Your task to perform on an android device: turn on the 12-hour format for clock Image 0: 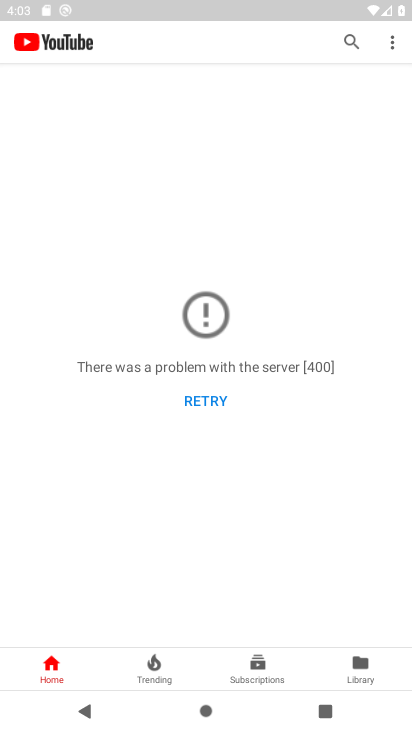
Step 0: press home button
Your task to perform on an android device: turn on the 12-hour format for clock Image 1: 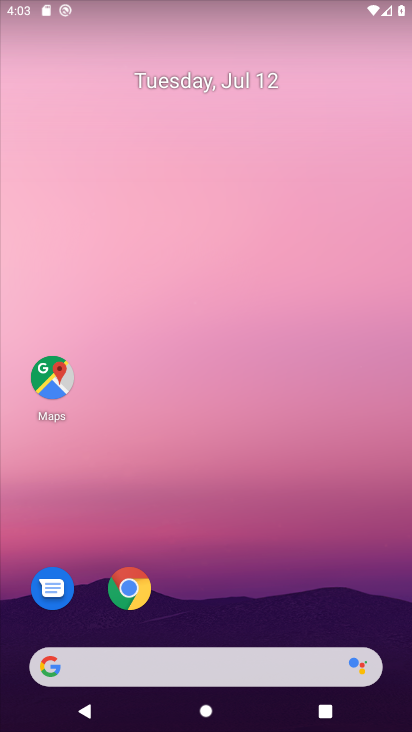
Step 1: drag from (206, 648) to (263, 68)
Your task to perform on an android device: turn on the 12-hour format for clock Image 2: 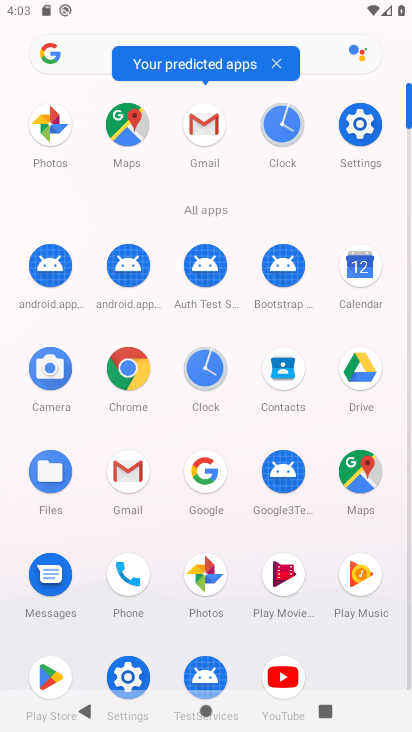
Step 2: click (201, 362)
Your task to perform on an android device: turn on the 12-hour format for clock Image 3: 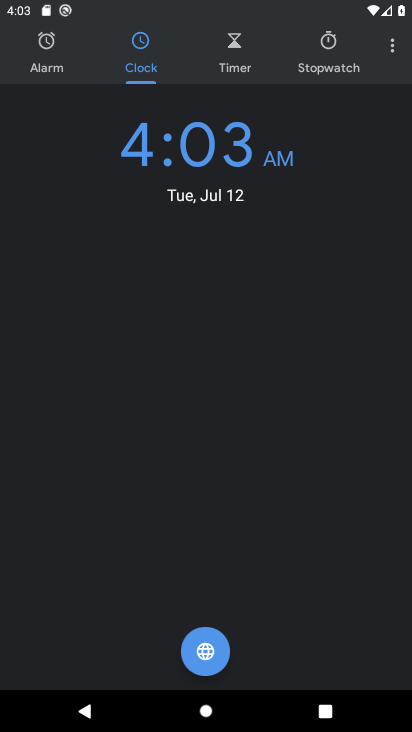
Step 3: click (387, 47)
Your task to perform on an android device: turn on the 12-hour format for clock Image 4: 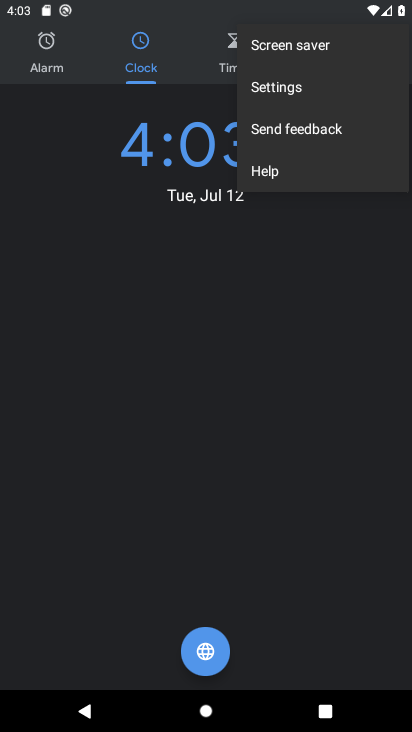
Step 4: click (321, 100)
Your task to perform on an android device: turn on the 12-hour format for clock Image 5: 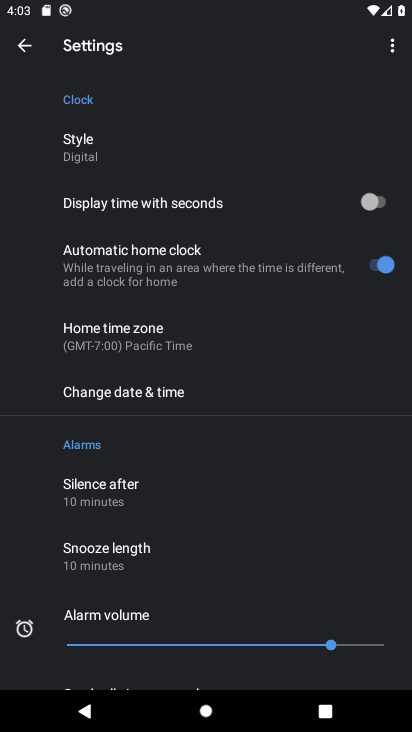
Step 5: click (212, 396)
Your task to perform on an android device: turn on the 12-hour format for clock Image 6: 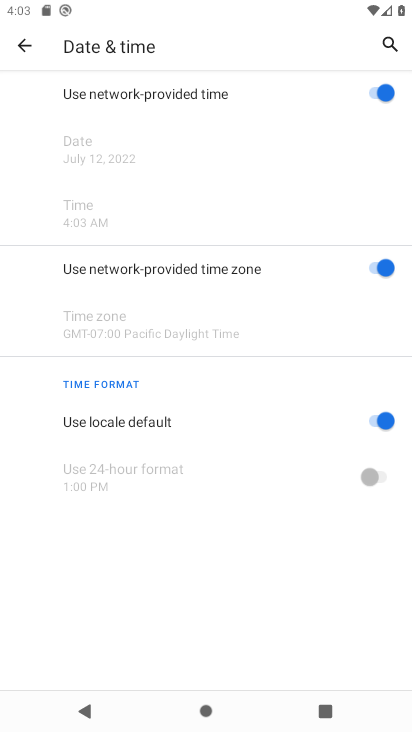
Step 6: task complete